Your task to perform on an android device: add a contact Image 0: 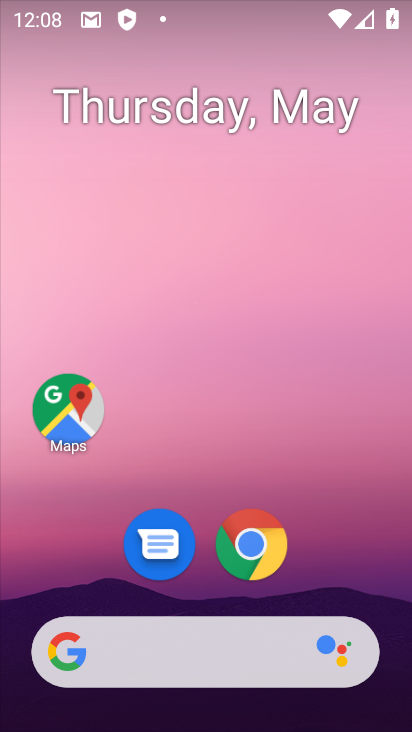
Step 0: drag from (243, 699) to (278, 102)
Your task to perform on an android device: add a contact Image 1: 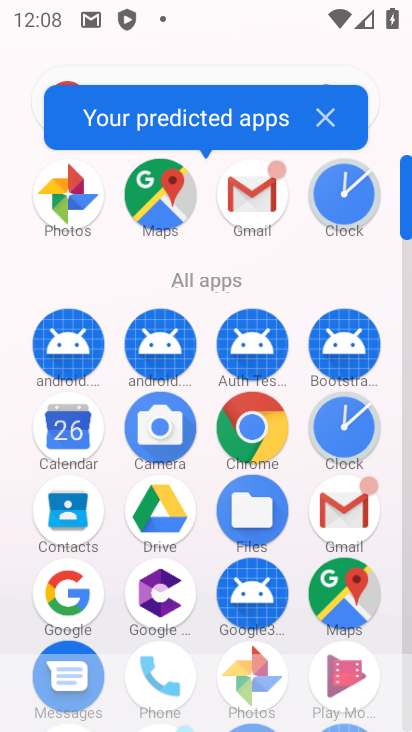
Step 1: drag from (187, 609) to (277, 259)
Your task to perform on an android device: add a contact Image 2: 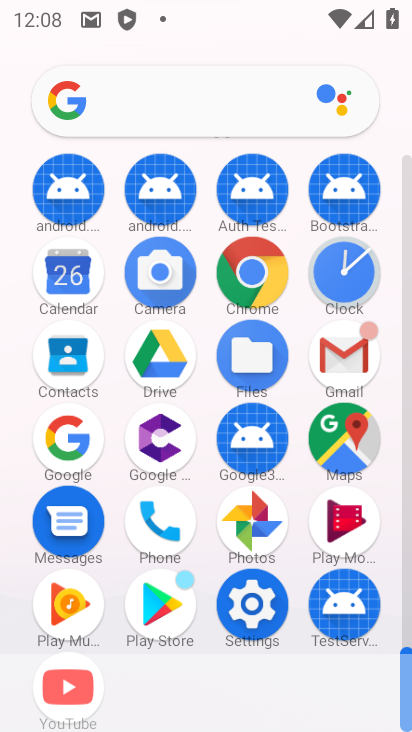
Step 2: click (57, 363)
Your task to perform on an android device: add a contact Image 3: 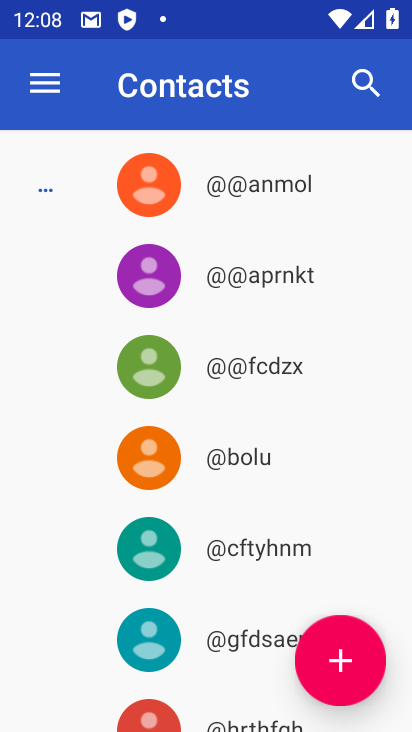
Step 3: click (368, 662)
Your task to perform on an android device: add a contact Image 4: 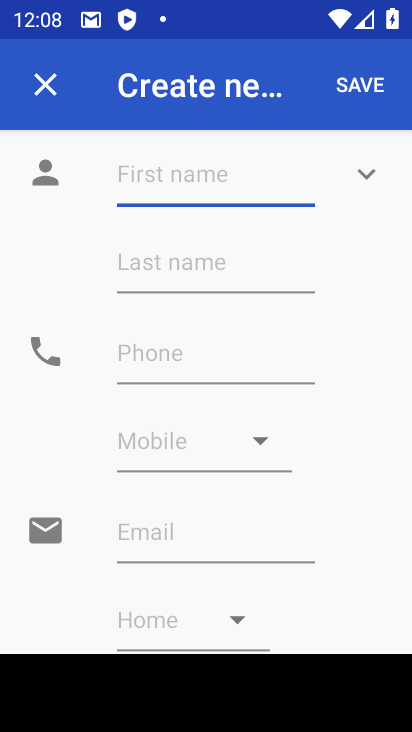
Step 4: type "jkkk"
Your task to perform on an android device: add a contact Image 5: 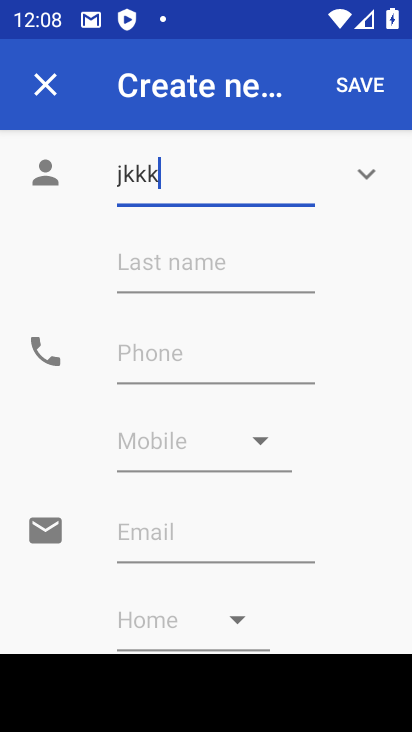
Step 5: click (179, 361)
Your task to perform on an android device: add a contact Image 6: 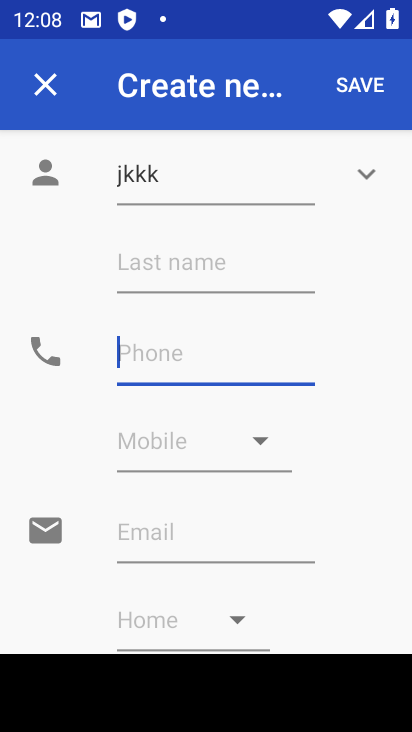
Step 6: type "78"
Your task to perform on an android device: add a contact Image 7: 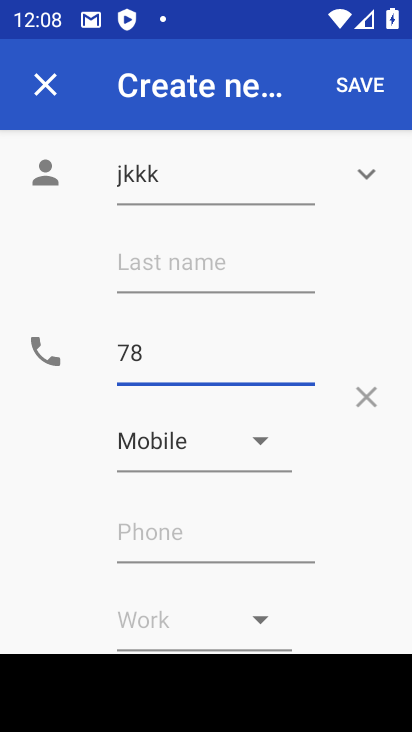
Step 7: click (357, 89)
Your task to perform on an android device: add a contact Image 8: 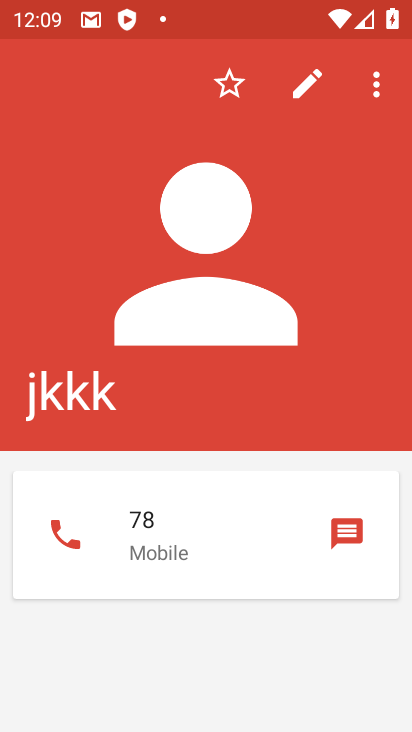
Step 8: task complete